Your task to perform on an android device: Open the web browser Image 0: 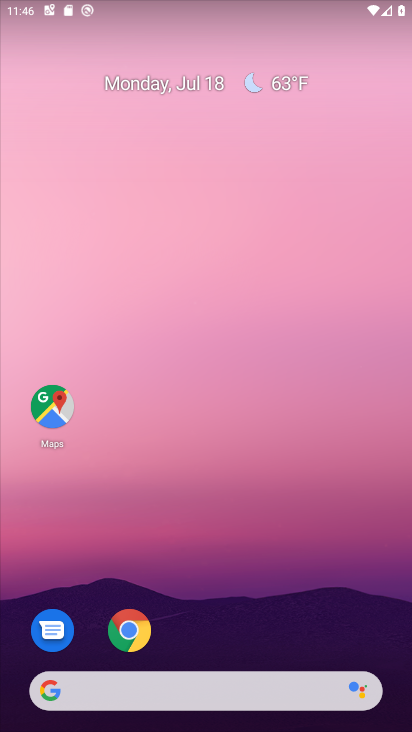
Step 0: drag from (203, 631) to (238, 155)
Your task to perform on an android device: Open the web browser Image 1: 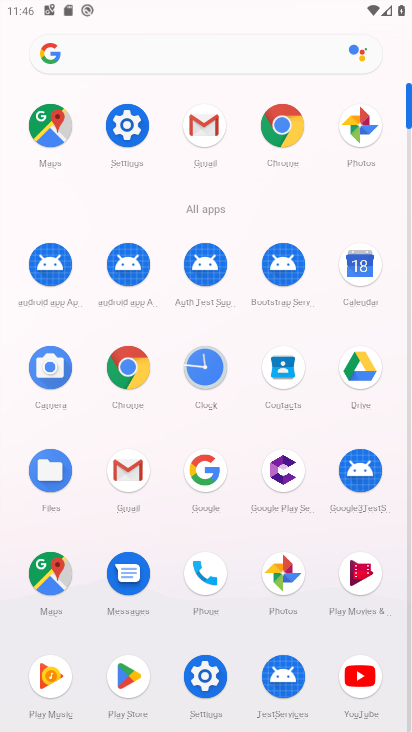
Step 1: click (205, 471)
Your task to perform on an android device: Open the web browser Image 2: 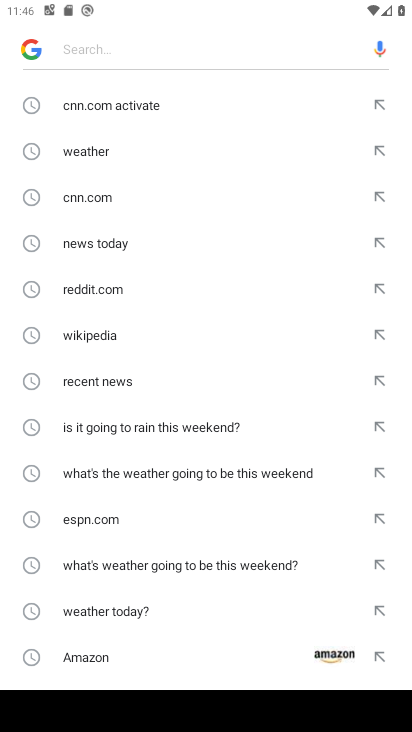
Step 2: task complete